Your task to perform on an android device: Go to CNN.com Image 0: 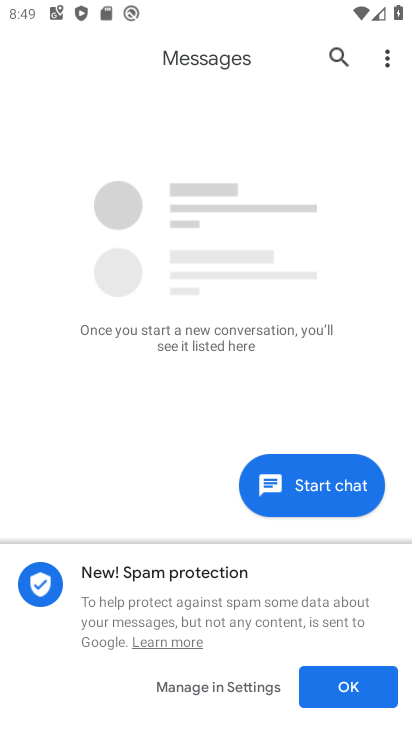
Step 0: press back button
Your task to perform on an android device: Go to CNN.com Image 1: 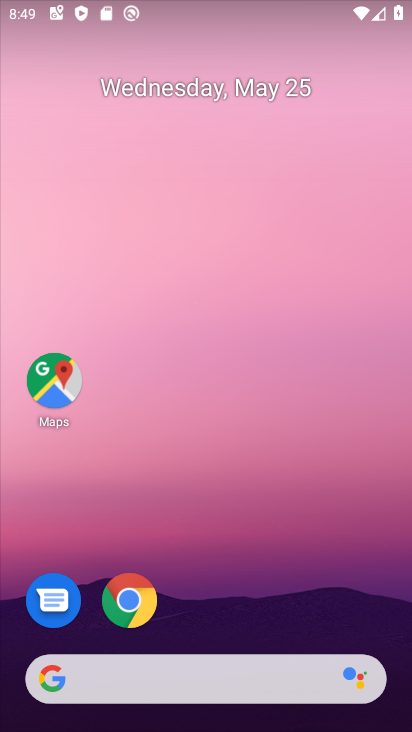
Step 1: drag from (212, 584) to (226, 31)
Your task to perform on an android device: Go to CNN.com Image 2: 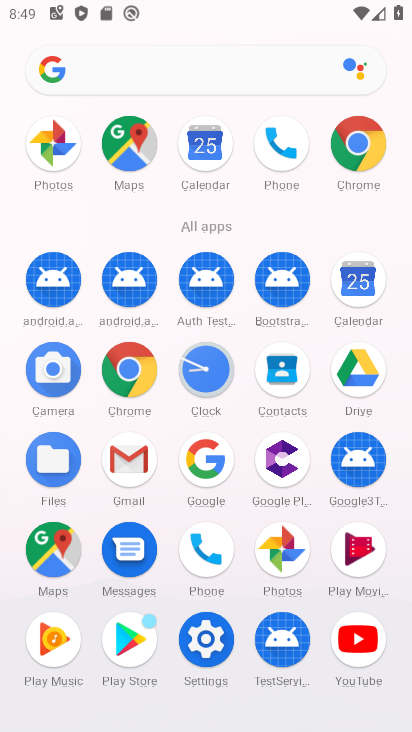
Step 2: click (127, 364)
Your task to perform on an android device: Go to CNN.com Image 3: 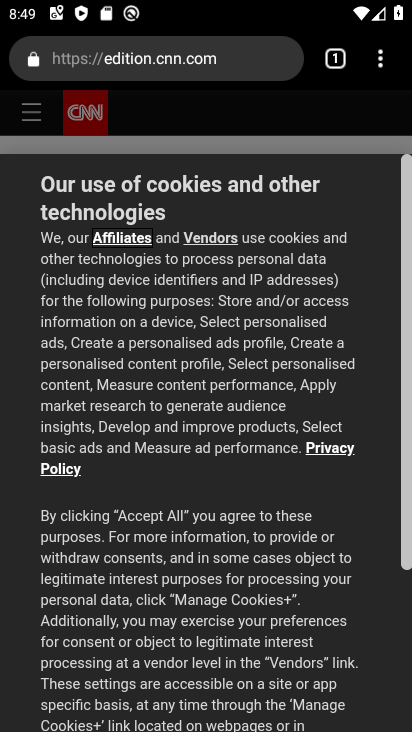
Step 3: task complete